Your task to perform on an android device: Is it going to rain this weekend? Image 0: 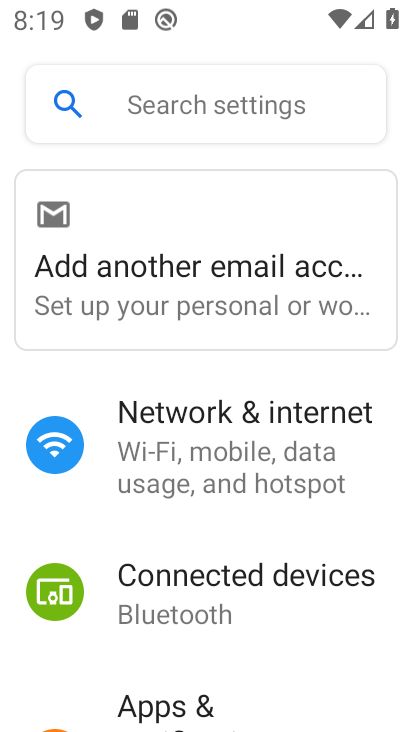
Step 0: drag from (222, 569) to (177, 178)
Your task to perform on an android device: Is it going to rain this weekend? Image 1: 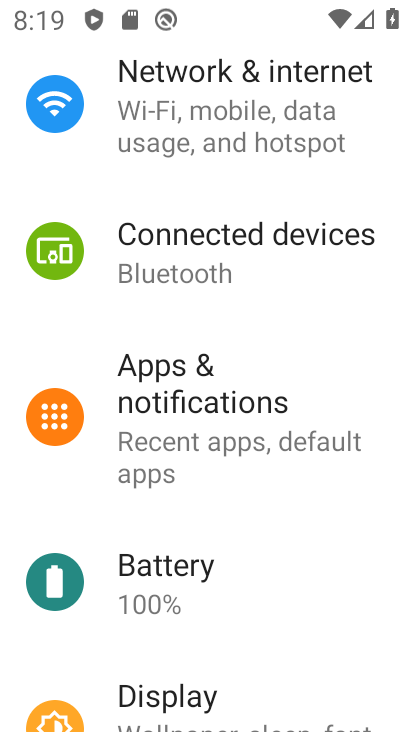
Step 1: press home button
Your task to perform on an android device: Is it going to rain this weekend? Image 2: 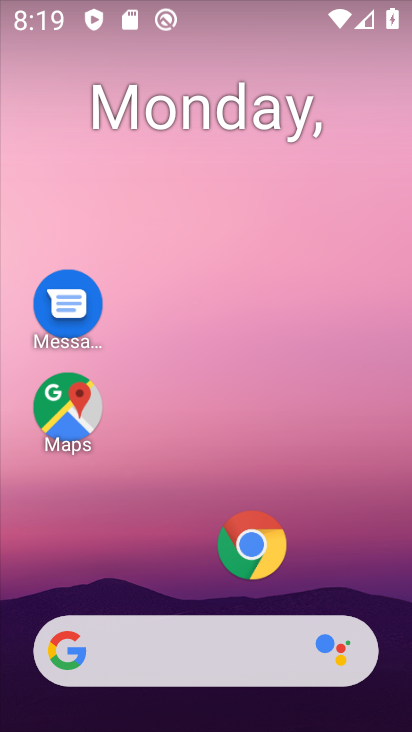
Step 2: drag from (34, 170) to (404, 155)
Your task to perform on an android device: Is it going to rain this weekend? Image 3: 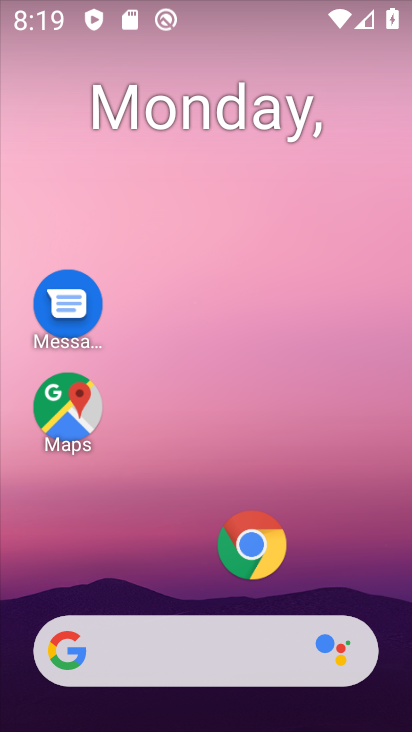
Step 3: drag from (0, 173) to (408, 197)
Your task to perform on an android device: Is it going to rain this weekend? Image 4: 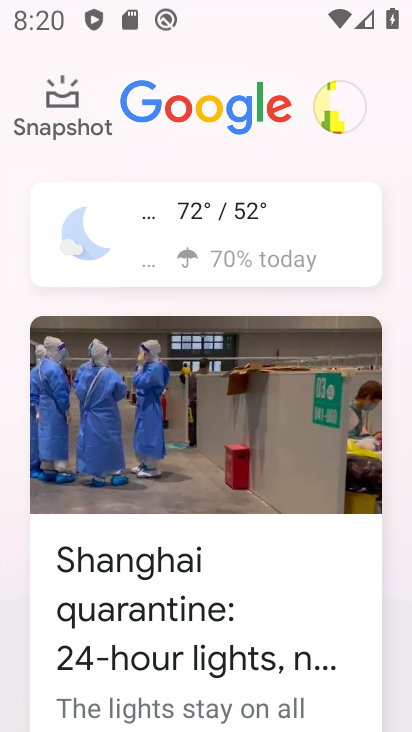
Step 4: click (220, 219)
Your task to perform on an android device: Is it going to rain this weekend? Image 5: 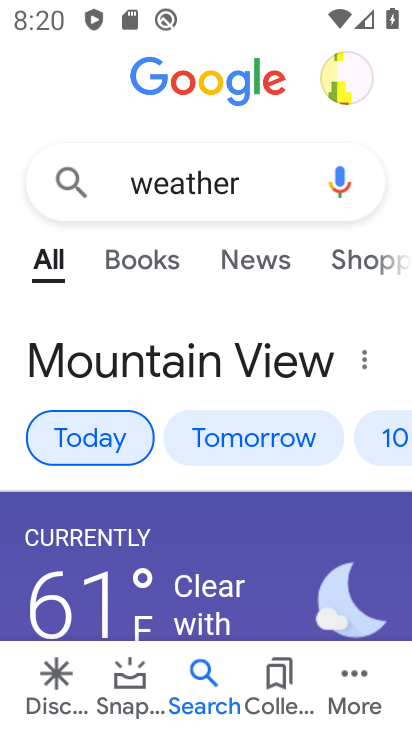
Step 5: click (396, 427)
Your task to perform on an android device: Is it going to rain this weekend? Image 6: 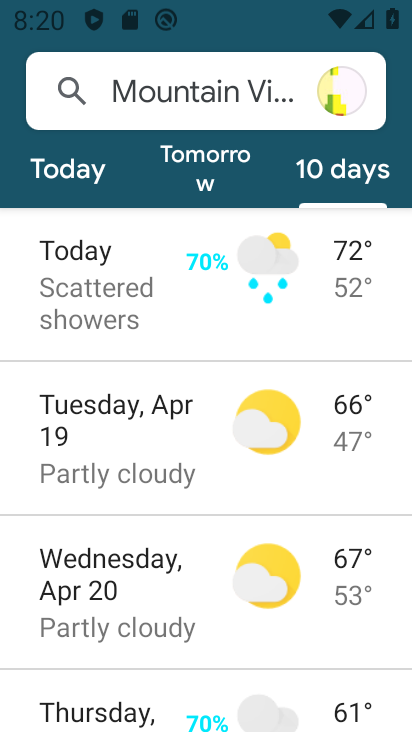
Step 6: task complete